Your task to perform on an android device: delete a single message in the gmail app Image 0: 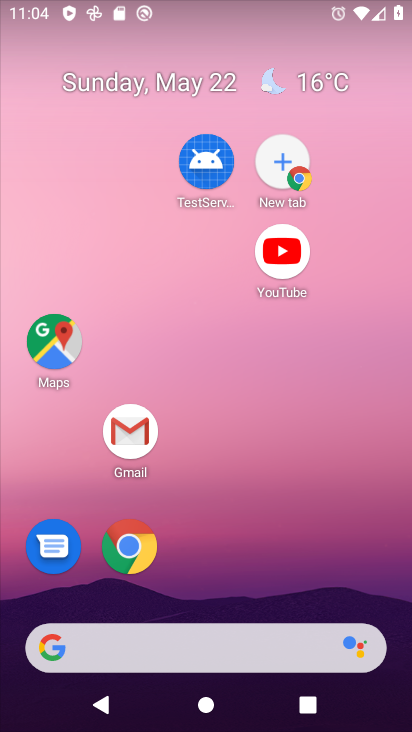
Step 0: drag from (242, 595) to (188, 178)
Your task to perform on an android device: delete a single message in the gmail app Image 1: 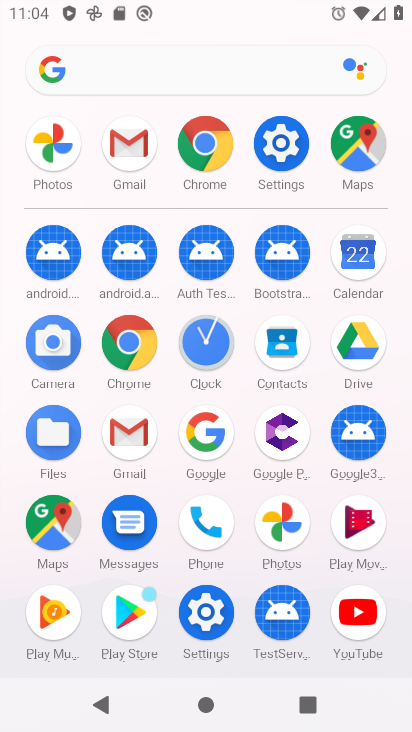
Step 1: click (123, 416)
Your task to perform on an android device: delete a single message in the gmail app Image 2: 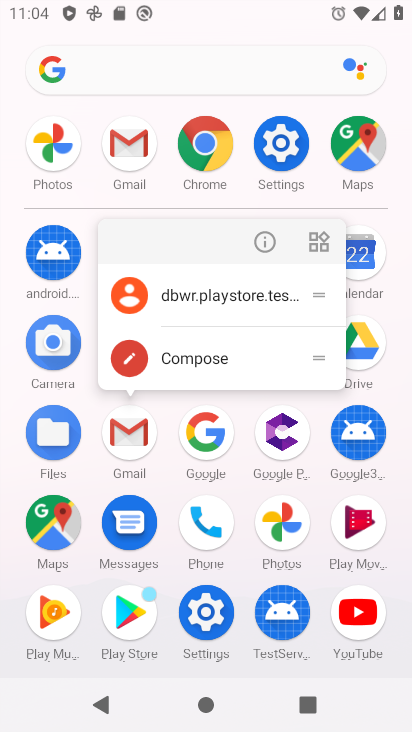
Step 2: click (121, 430)
Your task to perform on an android device: delete a single message in the gmail app Image 3: 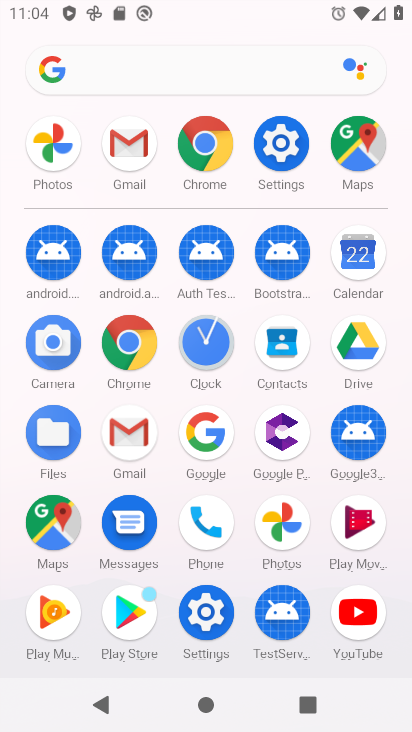
Step 3: click (121, 430)
Your task to perform on an android device: delete a single message in the gmail app Image 4: 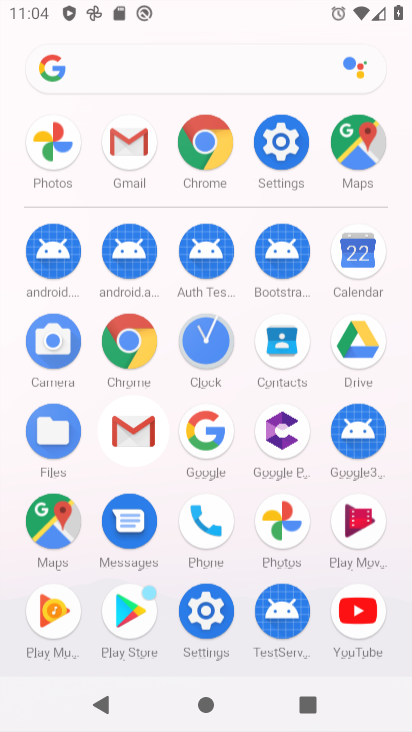
Step 4: click (120, 427)
Your task to perform on an android device: delete a single message in the gmail app Image 5: 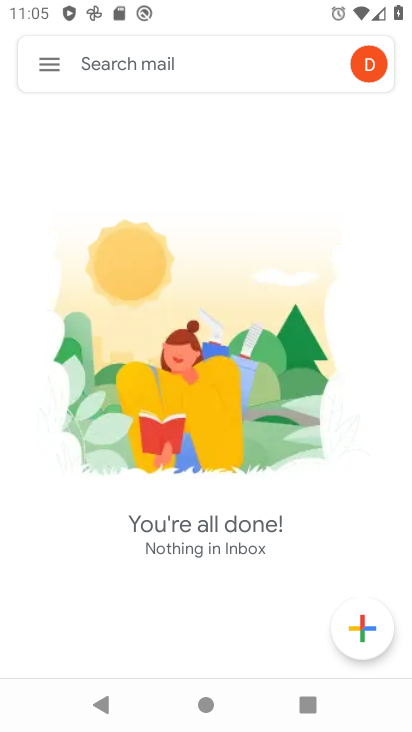
Step 5: click (52, 67)
Your task to perform on an android device: delete a single message in the gmail app Image 6: 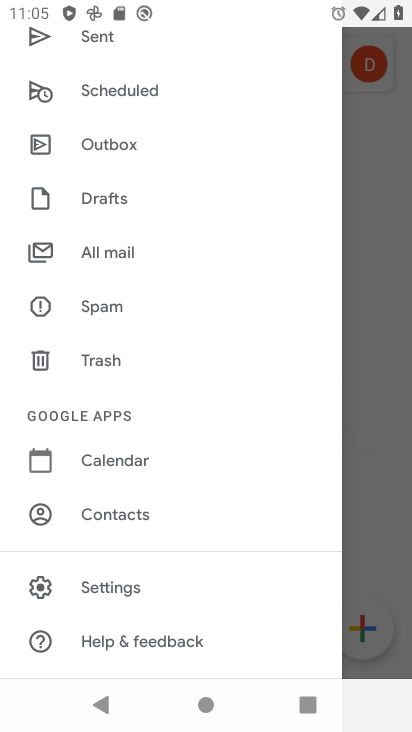
Step 6: click (103, 253)
Your task to perform on an android device: delete a single message in the gmail app Image 7: 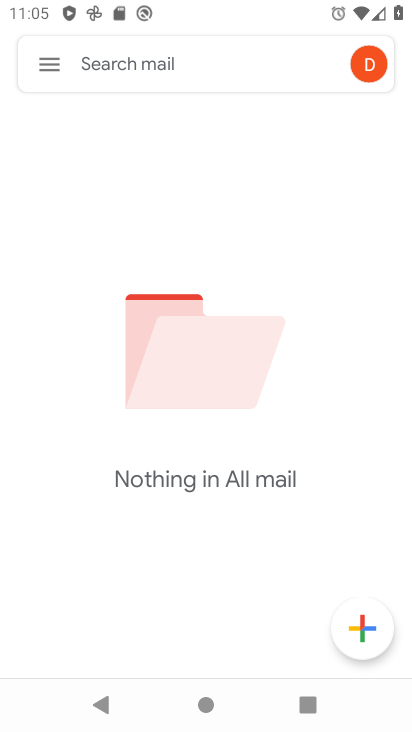
Step 7: task complete